Your task to perform on an android device: open a bookmark in the chrome app Image 0: 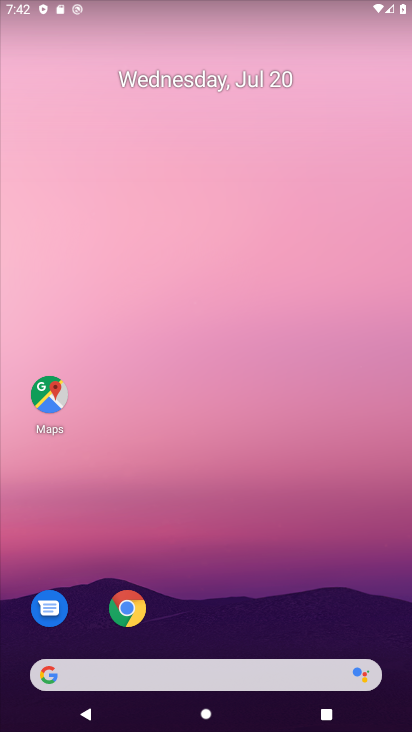
Step 0: click (142, 607)
Your task to perform on an android device: open a bookmark in the chrome app Image 1: 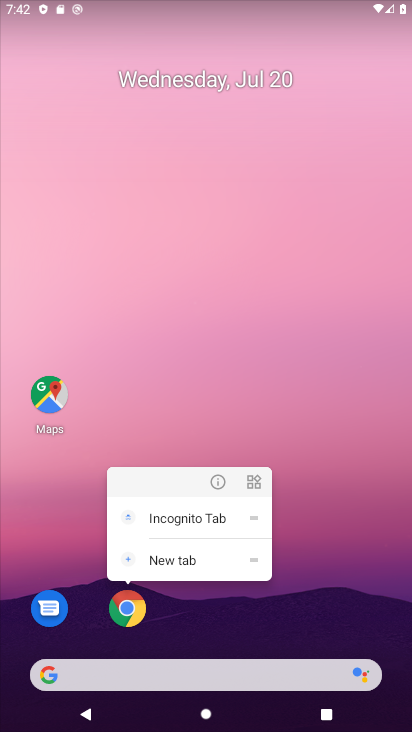
Step 1: click (142, 607)
Your task to perform on an android device: open a bookmark in the chrome app Image 2: 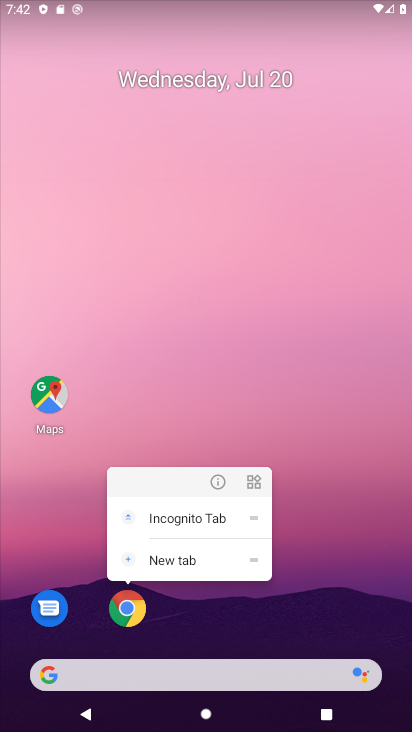
Step 2: click (142, 607)
Your task to perform on an android device: open a bookmark in the chrome app Image 3: 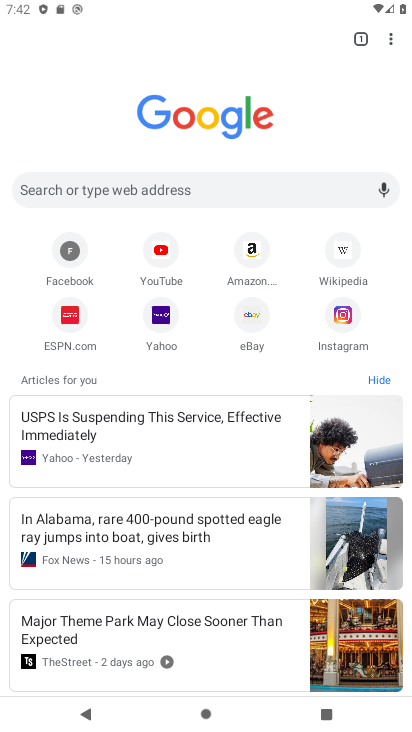
Step 3: click (389, 40)
Your task to perform on an android device: open a bookmark in the chrome app Image 4: 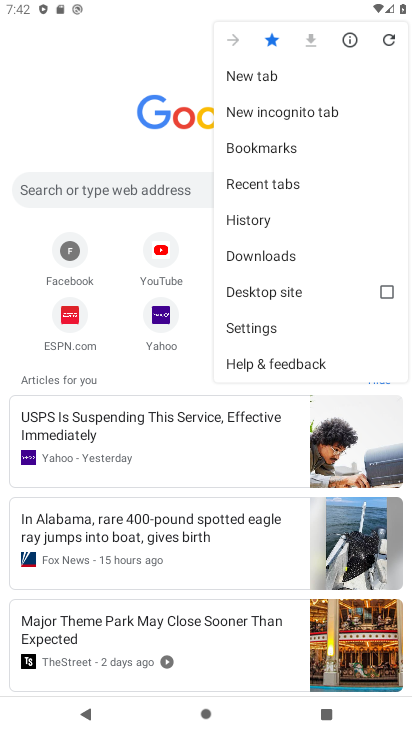
Step 4: click (259, 160)
Your task to perform on an android device: open a bookmark in the chrome app Image 5: 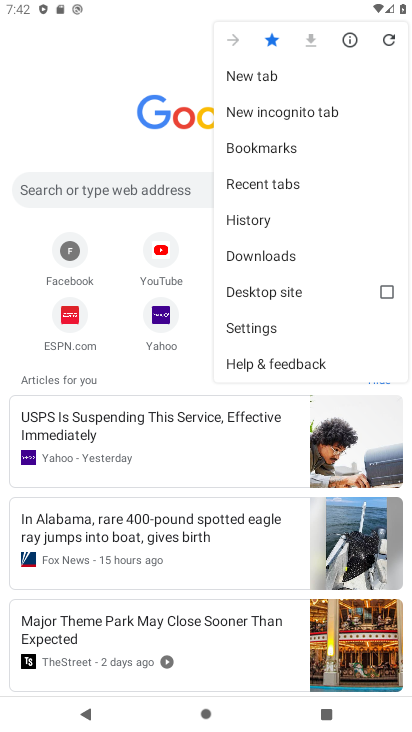
Step 5: click (263, 154)
Your task to perform on an android device: open a bookmark in the chrome app Image 6: 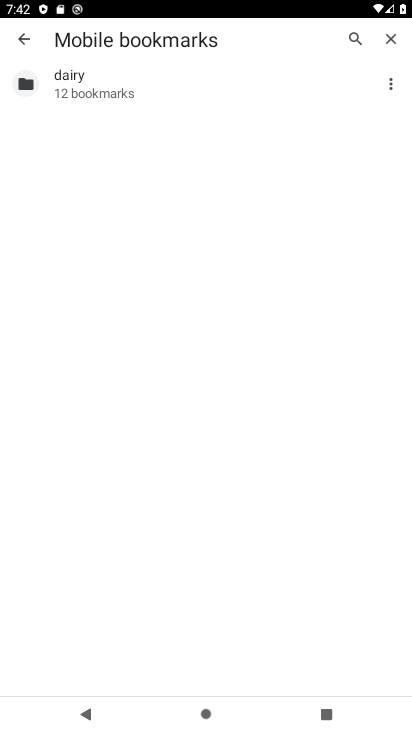
Step 6: click (126, 86)
Your task to perform on an android device: open a bookmark in the chrome app Image 7: 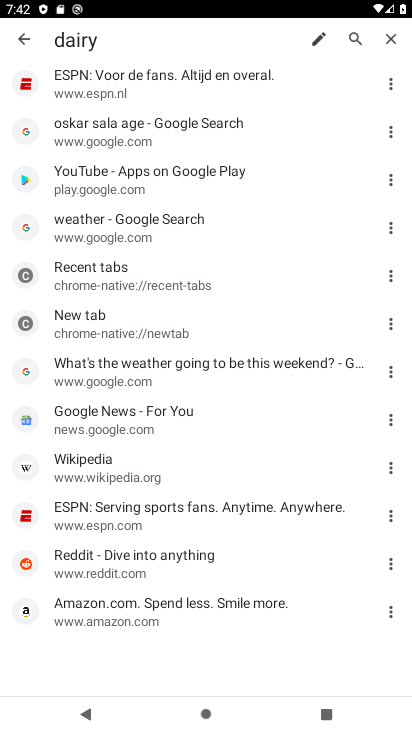
Step 7: click (105, 333)
Your task to perform on an android device: open a bookmark in the chrome app Image 8: 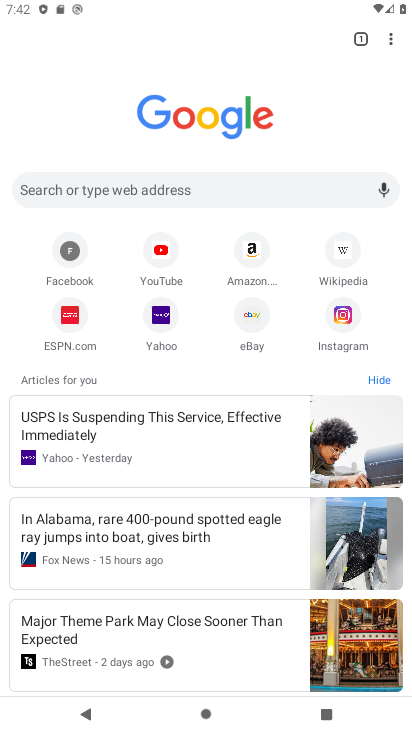
Step 8: task complete